Your task to perform on an android device: When is my next appointment? Image 0: 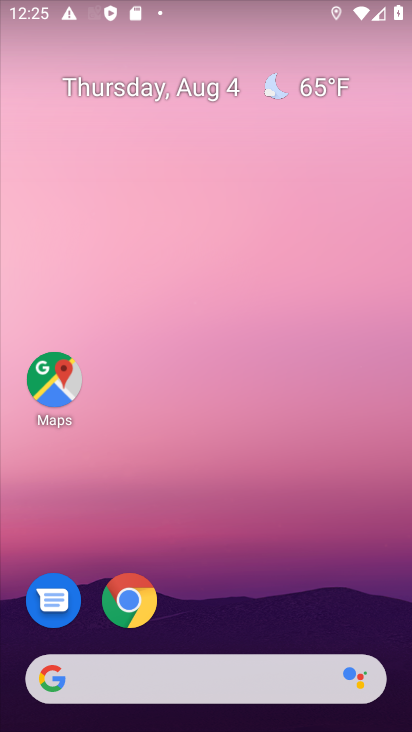
Step 0: drag from (240, 638) to (229, 25)
Your task to perform on an android device: When is my next appointment? Image 1: 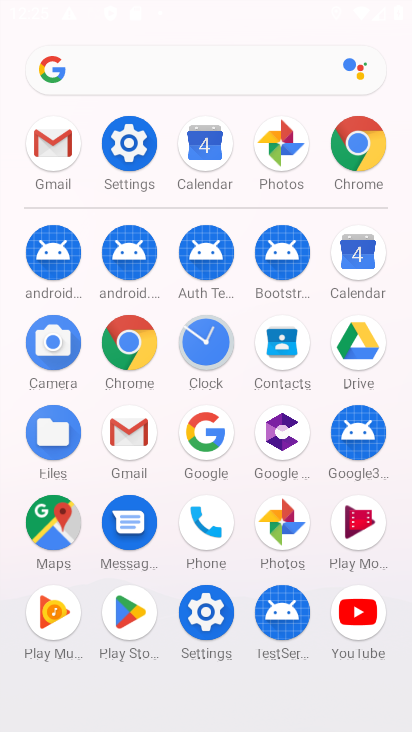
Step 1: click (188, 149)
Your task to perform on an android device: When is my next appointment? Image 2: 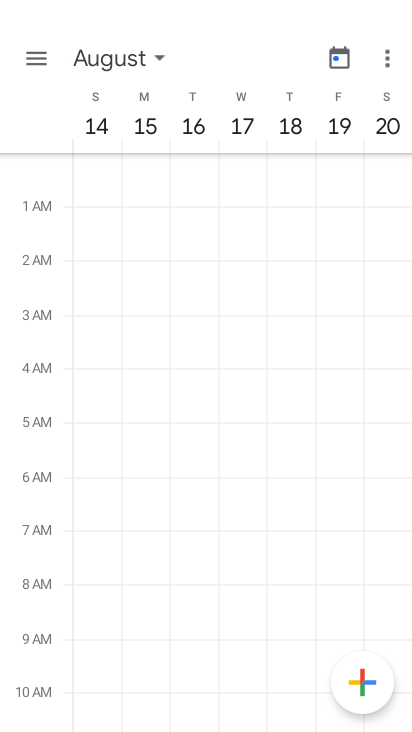
Step 2: task complete